Your task to perform on an android device: What's the weather? Image 0: 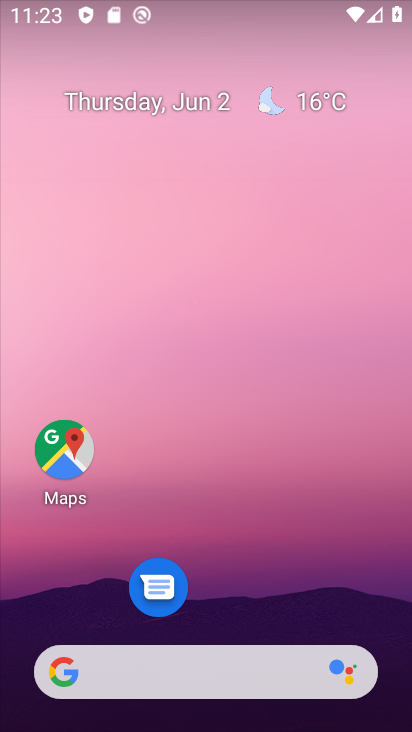
Step 0: click (187, 662)
Your task to perform on an android device: What's the weather? Image 1: 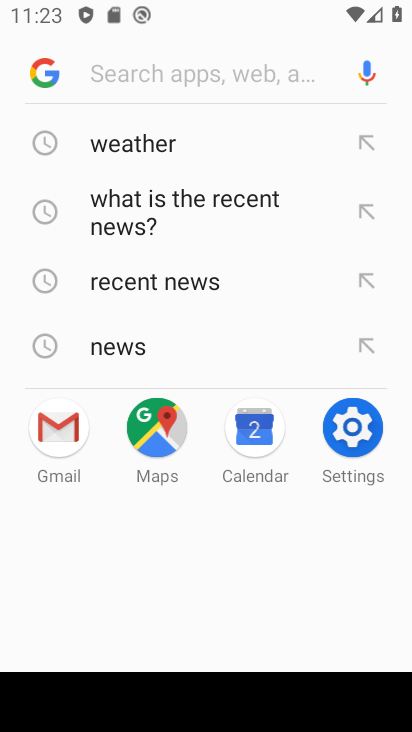
Step 1: click (128, 157)
Your task to perform on an android device: What's the weather? Image 2: 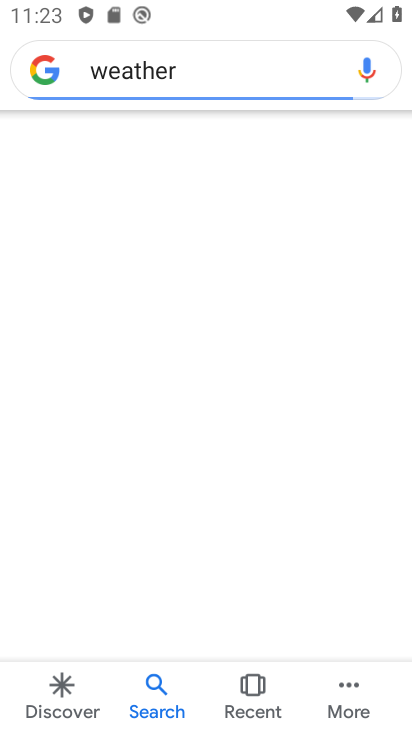
Step 2: task complete